Your task to perform on an android device: Check the weather Image 0: 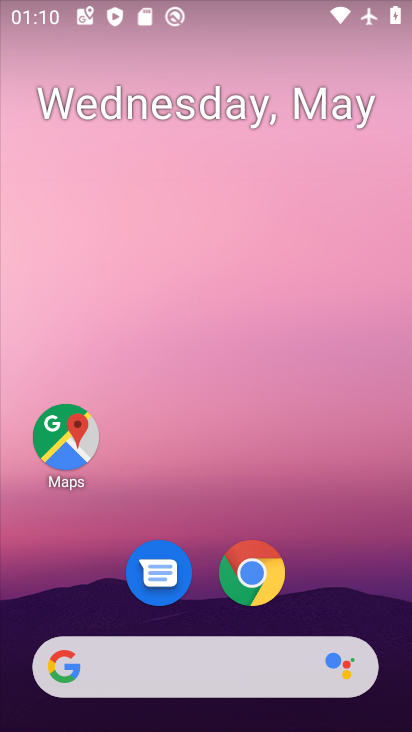
Step 0: click (254, 570)
Your task to perform on an android device: Check the weather Image 1: 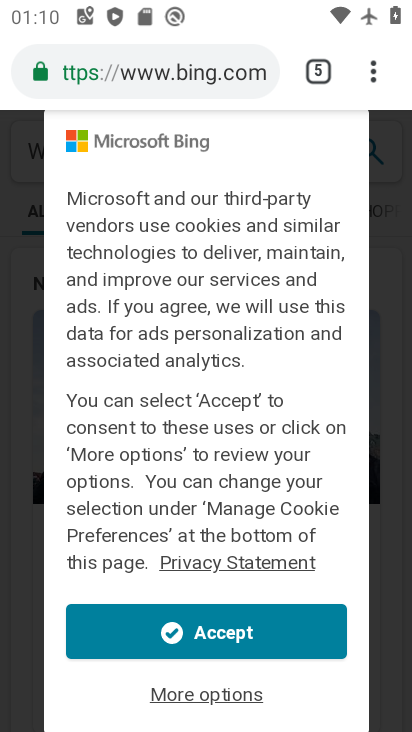
Step 1: task complete